Your task to perform on an android device: Search for vegetarian restaurants on Maps Image 0: 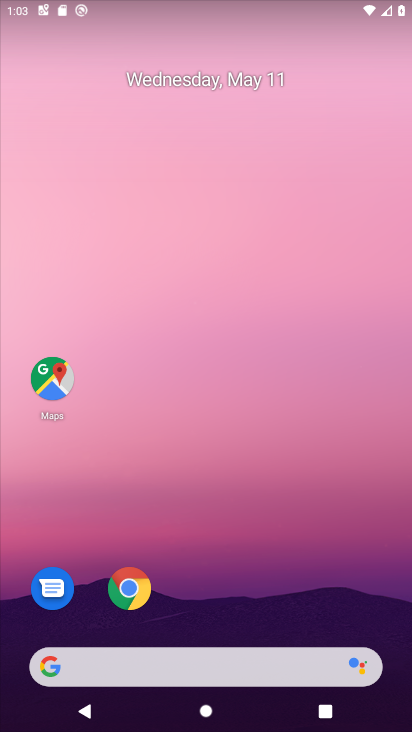
Step 0: click (44, 382)
Your task to perform on an android device: Search for vegetarian restaurants on Maps Image 1: 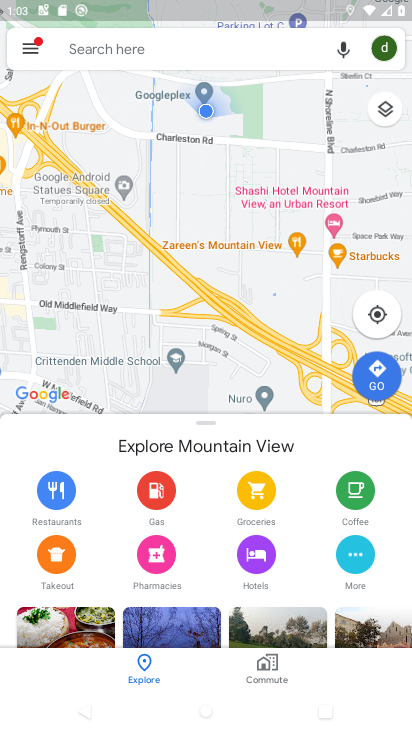
Step 1: click (139, 47)
Your task to perform on an android device: Search for vegetarian restaurants on Maps Image 2: 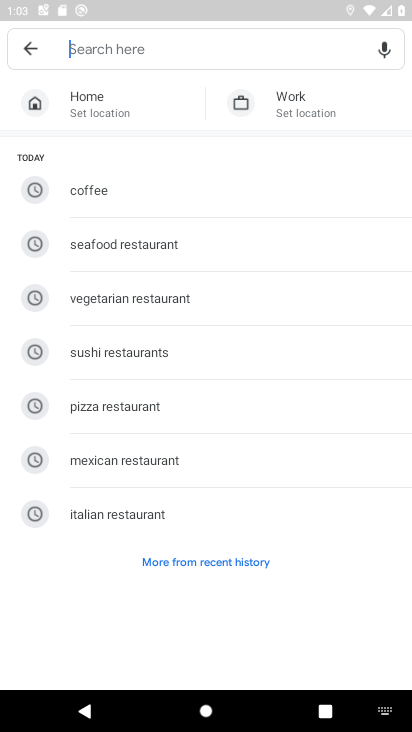
Step 2: click (103, 296)
Your task to perform on an android device: Search for vegetarian restaurants on Maps Image 3: 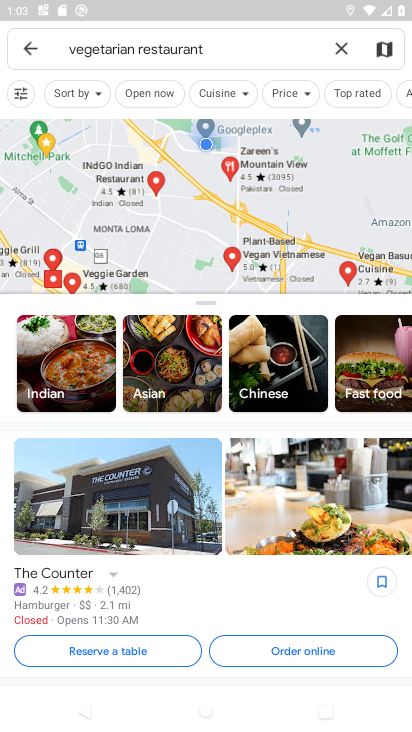
Step 3: task complete